Your task to perform on an android device: add a contact Image 0: 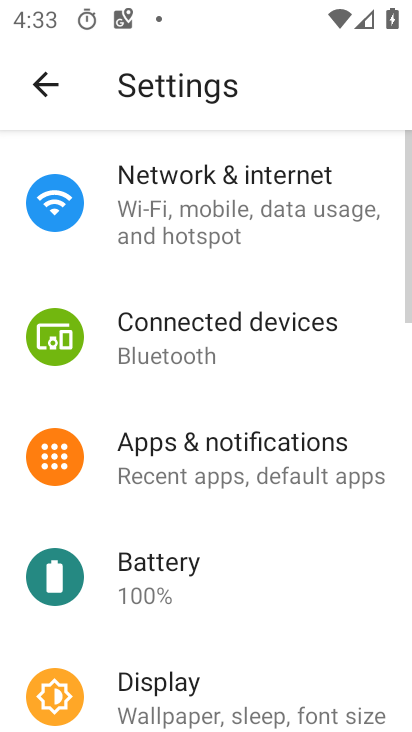
Step 0: press home button
Your task to perform on an android device: add a contact Image 1: 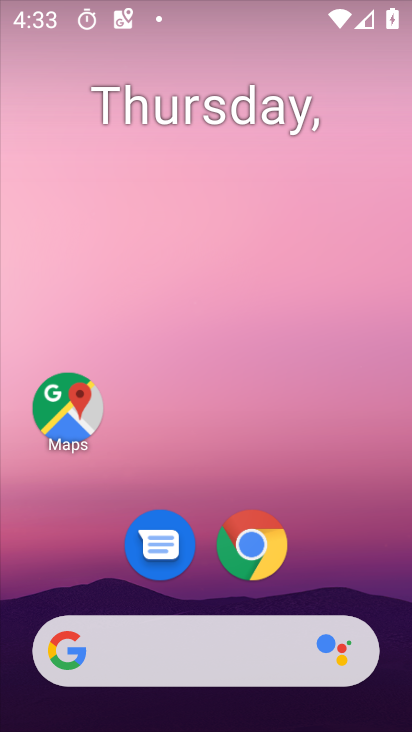
Step 1: drag from (230, 658) to (230, 126)
Your task to perform on an android device: add a contact Image 2: 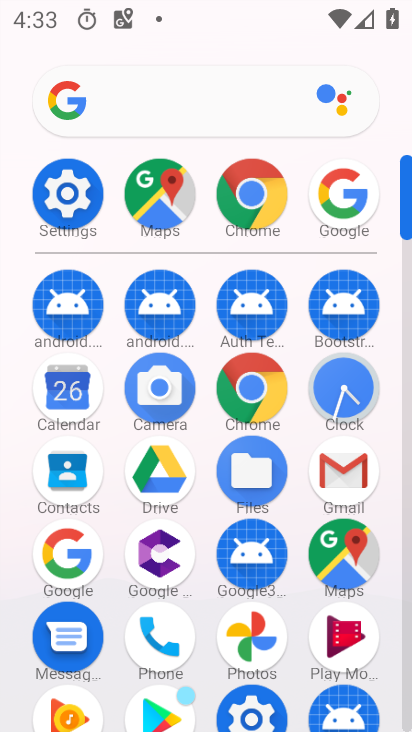
Step 2: click (64, 487)
Your task to perform on an android device: add a contact Image 3: 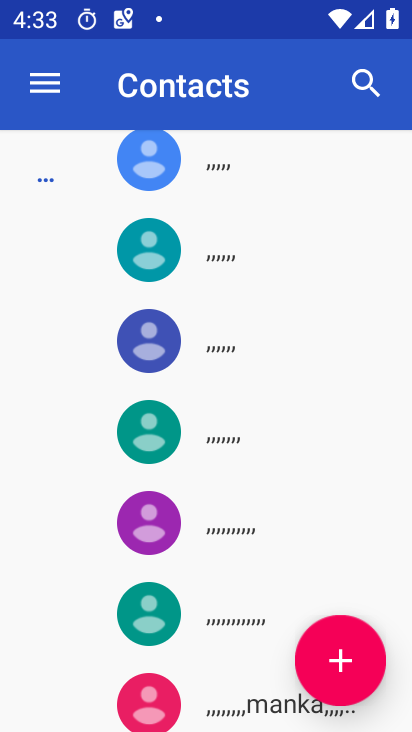
Step 3: click (337, 656)
Your task to perform on an android device: add a contact Image 4: 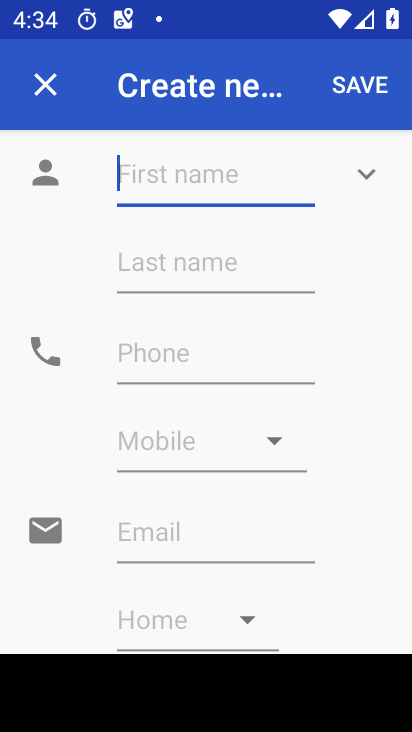
Step 4: type "booster"
Your task to perform on an android device: add a contact Image 5: 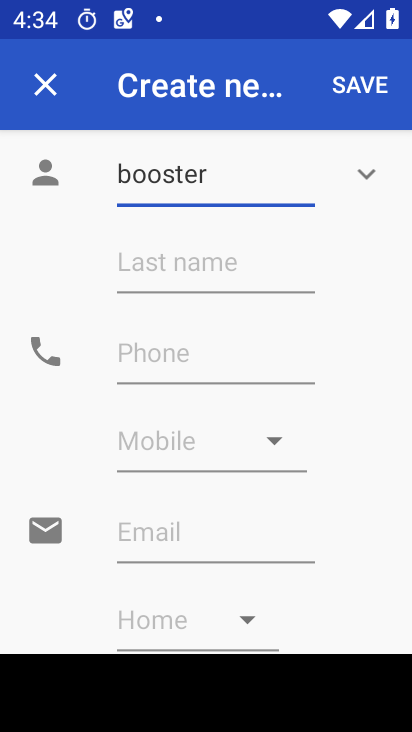
Step 5: click (150, 351)
Your task to perform on an android device: add a contact Image 6: 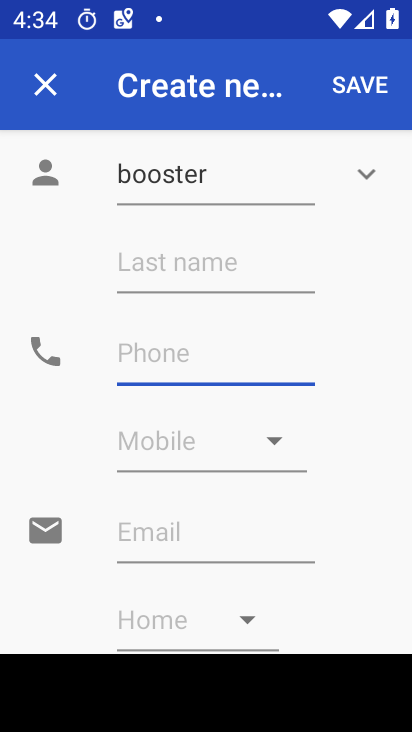
Step 6: type "100"
Your task to perform on an android device: add a contact Image 7: 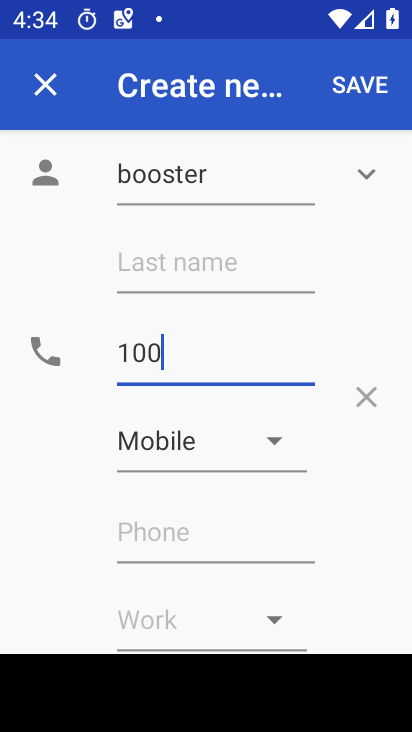
Step 7: click (351, 82)
Your task to perform on an android device: add a contact Image 8: 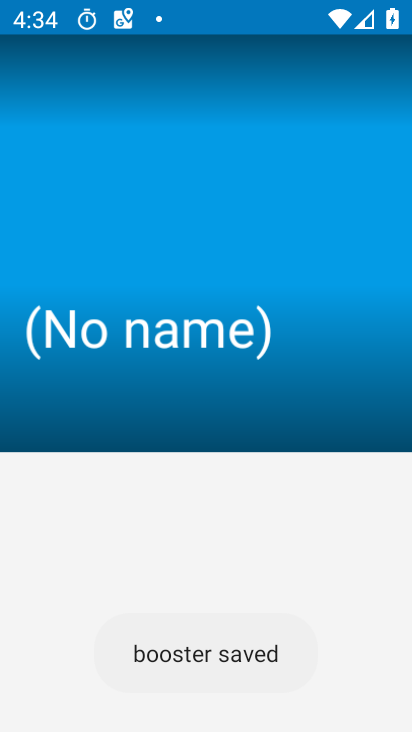
Step 8: task complete